Your task to perform on an android device: Go to notification settings Image 0: 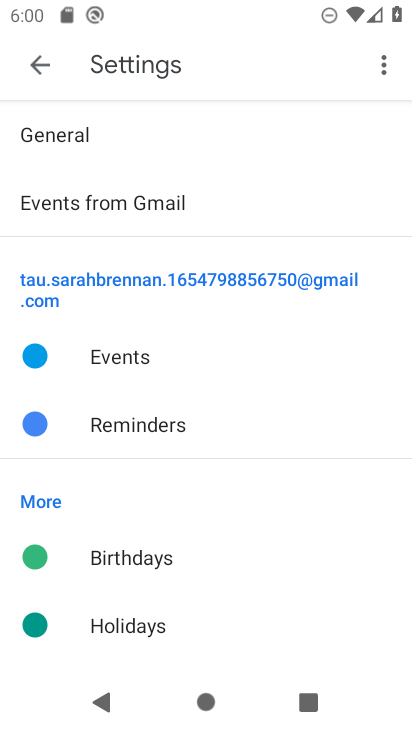
Step 0: press home button
Your task to perform on an android device: Go to notification settings Image 1: 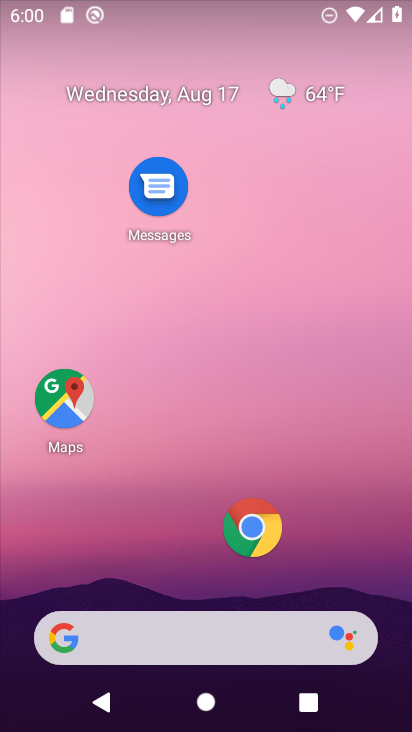
Step 1: drag from (203, 571) to (174, 230)
Your task to perform on an android device: Go to notification settings Image 2: 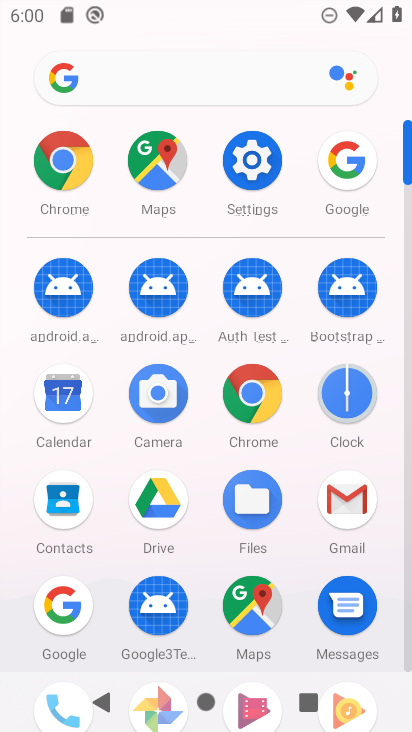
Step 2: click (242, 158)
Your task to perform on an android device: Go to notification settings Image 3: 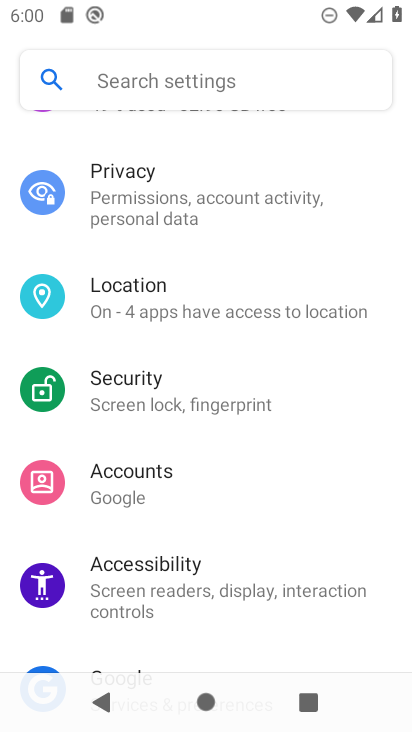
Step 3: drag from (202, 148) to (221, 605)
Your task to perform on an android device: Go to notification settings Image 4: 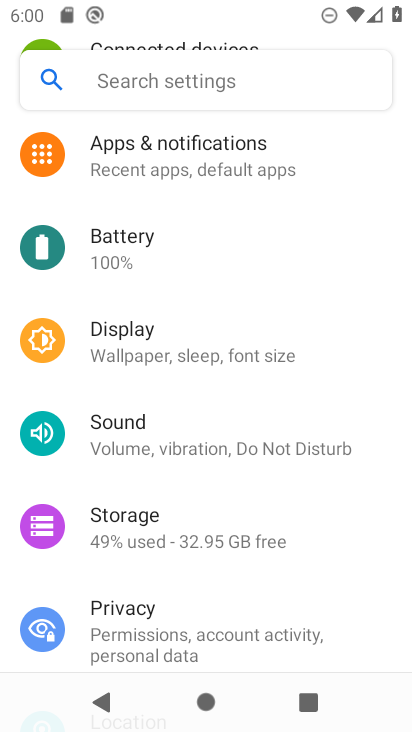
Step 4: drag from (167, 173) to (229, 557)
Your task to perform on an android device: Go to notification settings Image 5: 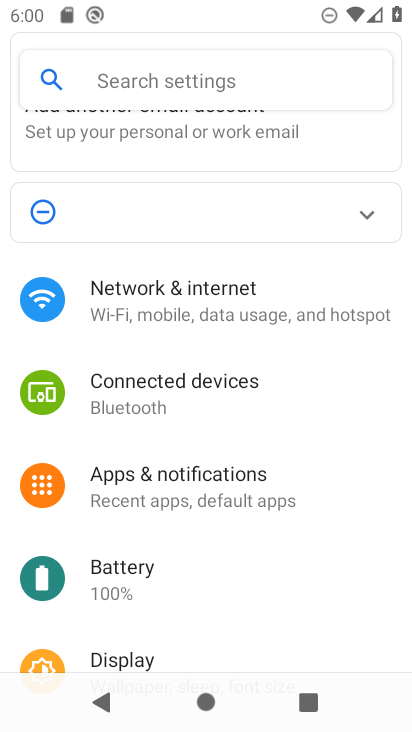
Step 5: click (174, 481)
Your task to perform on an android device: Go to notification settings Image 6: 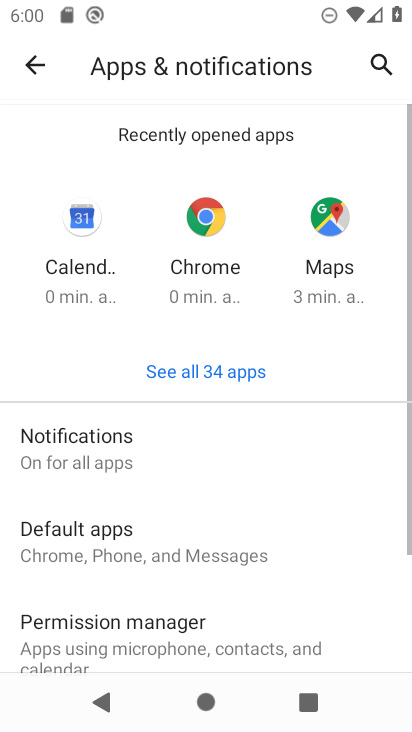
Step 6: drag from (173, 630) to (175, 244)
Your task to perform on an android device: Go to notification settings Image 7: 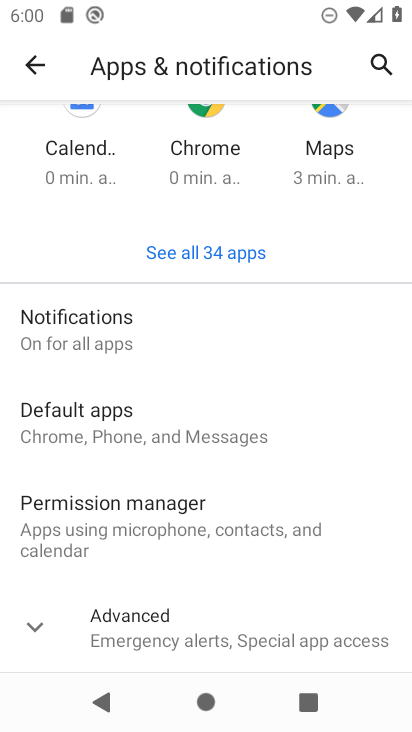
Step 7: click (170, 620)
Your task to perform on an android device: Go to notification settings Image 8: 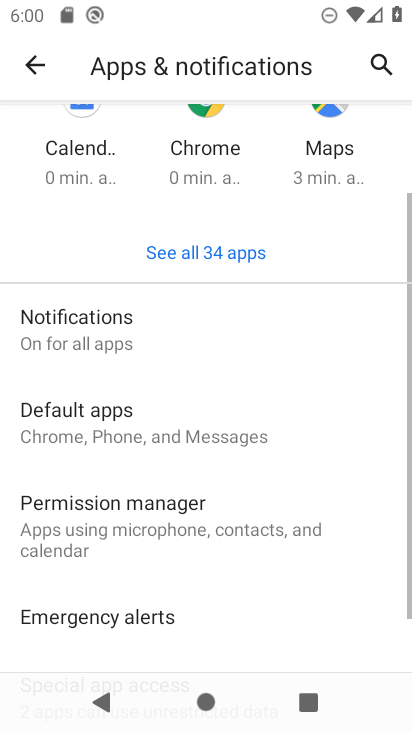
Step 8: task complete